Your task to perform on an android device: Search for the best selling books Image 0: 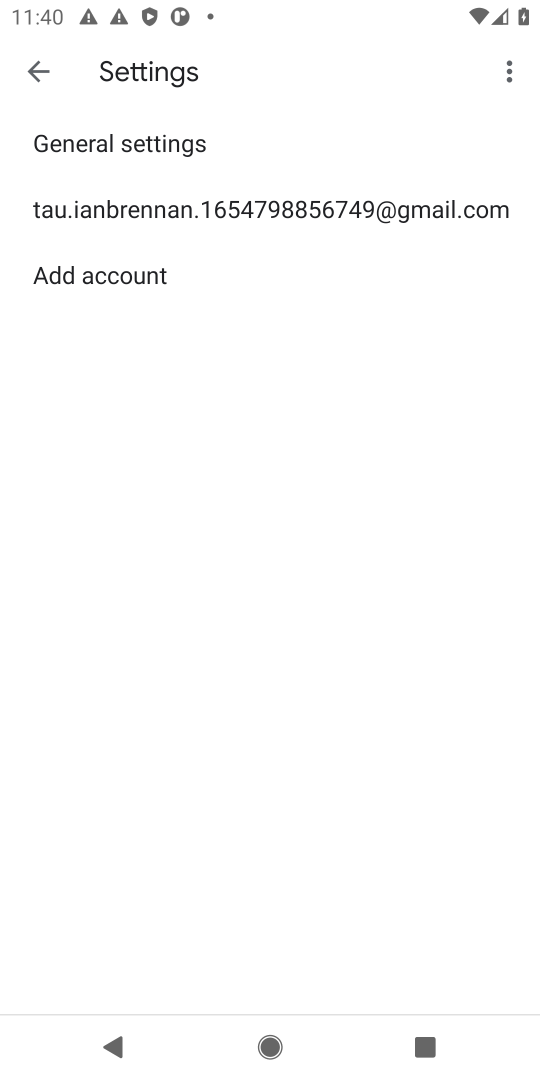
Step 0: press home button
Your task to perform on an android device: Search for the best selling books Image 1: 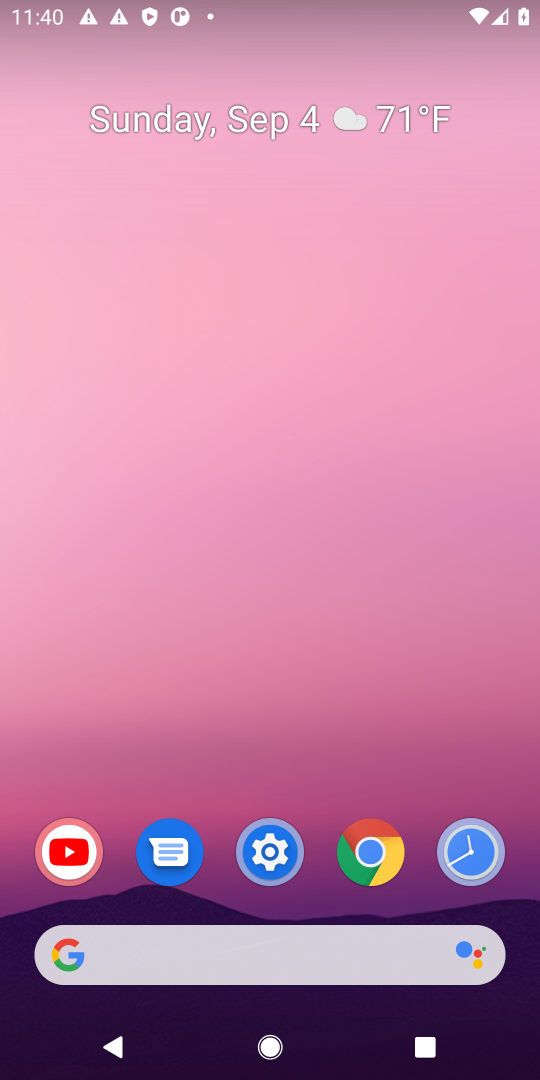
Step 1: click (372, 856)
Your task to perform on an android device: Search for the best selling books Image 2: 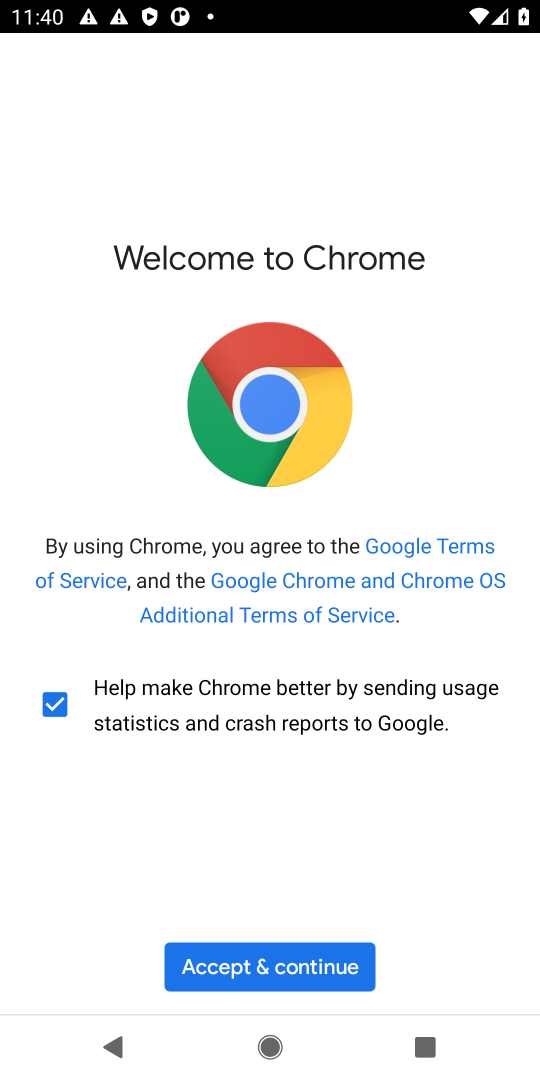
Step 2: click (264, 963)
Your task to perform on an android device: Search for the best selling books Image 3: 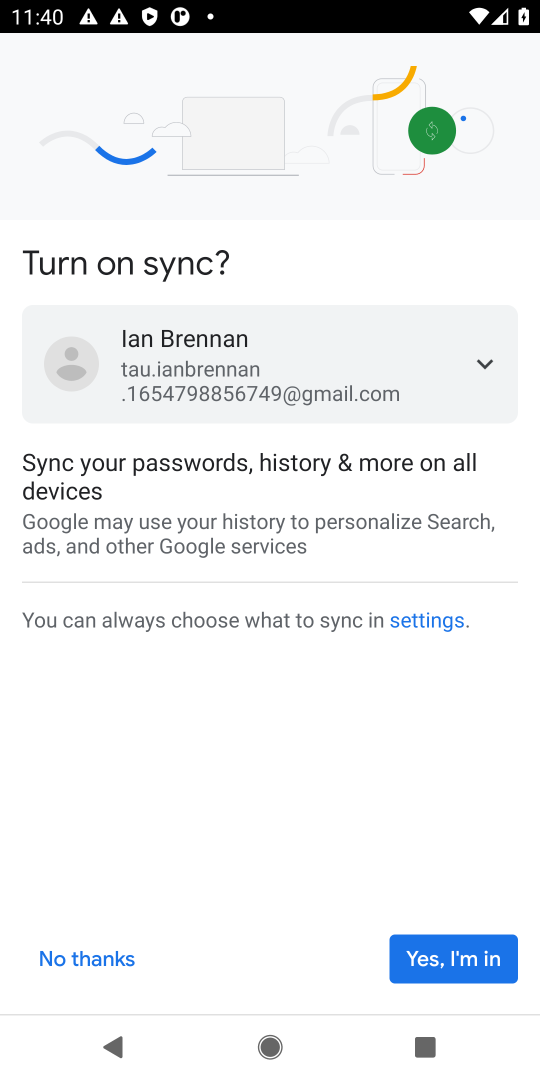
Step 3: click (463, 960)
Your task to perform on an android device: Search for the best selling books Image 4: 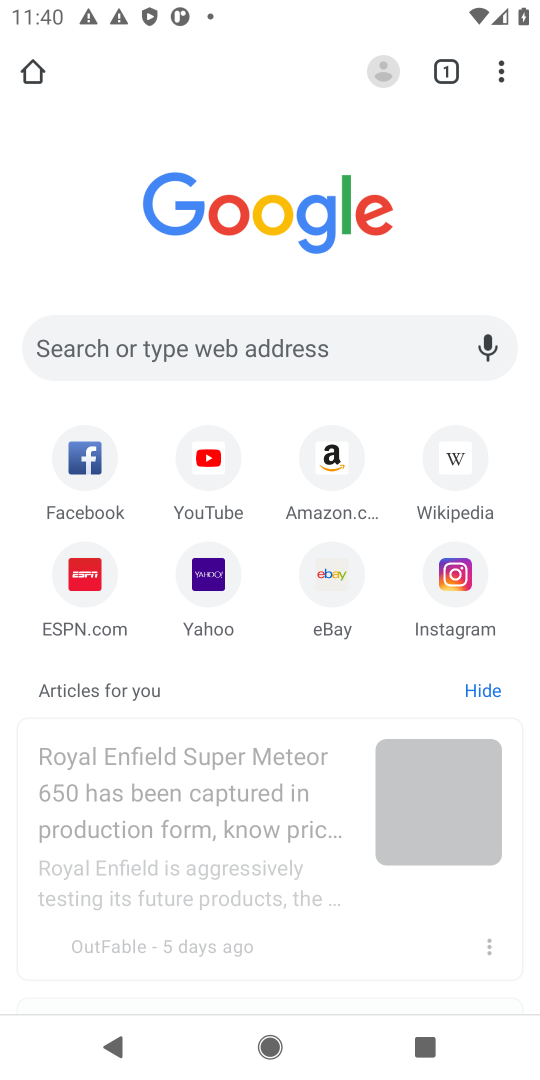
Step 4: click (164, 360)
Your task to perform on an android device: Search for the best selling books Image 5: 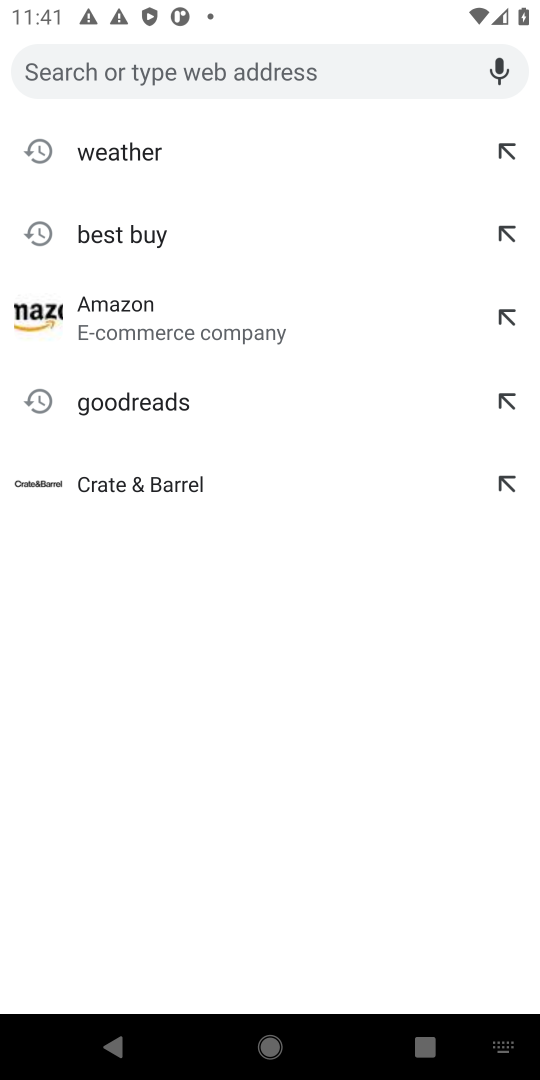
Step 5: type "best selling books"
Your task to perform on an android device: Search for the best selling books Image 6: 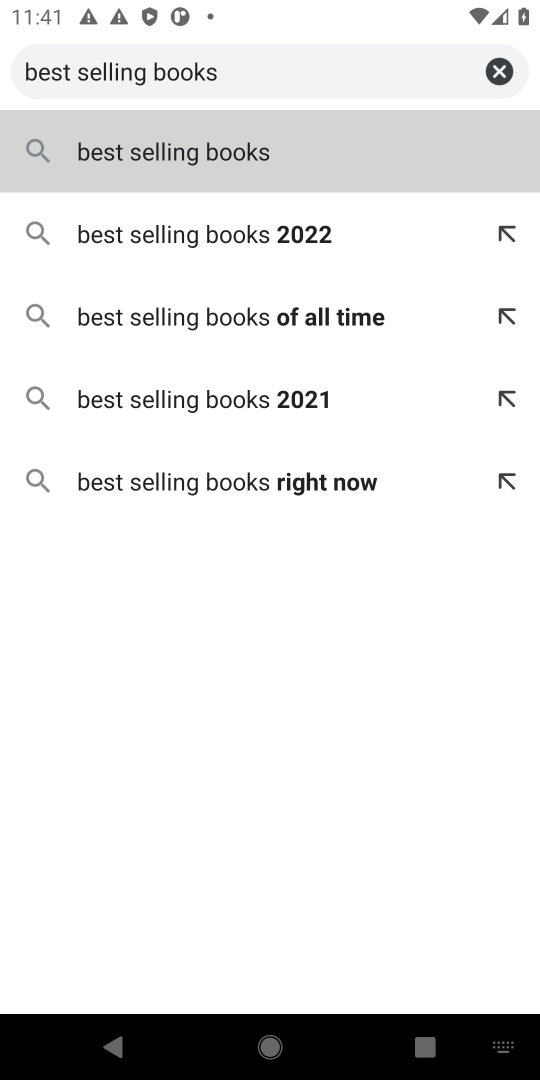
Step 6: click (130, 159)
Your task to perform on an android device: Search for the best selling books Image 7: 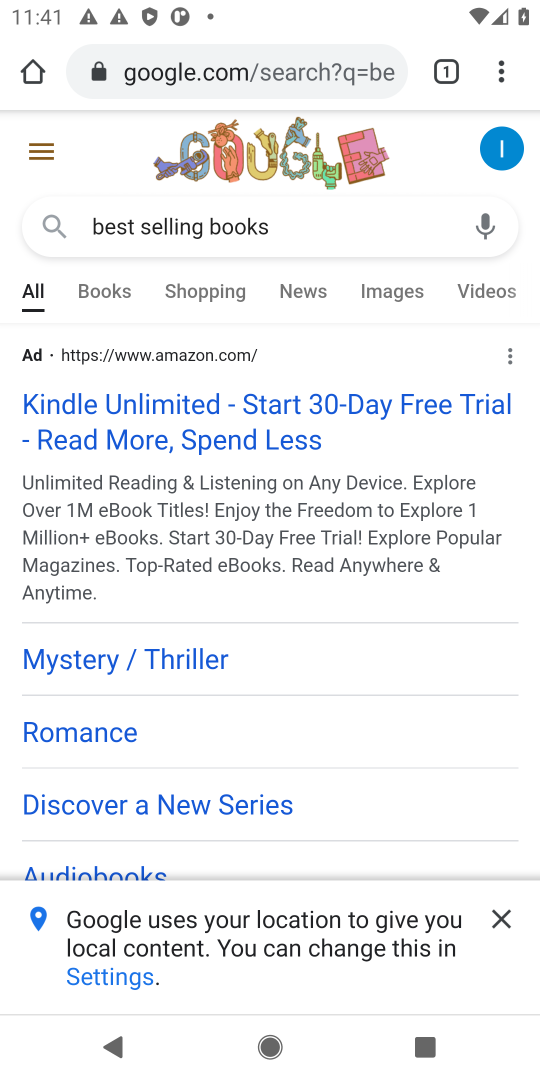
Step 7: task complete